Your task to perform on an android device: Show me popular games on the Play Store Image 0: 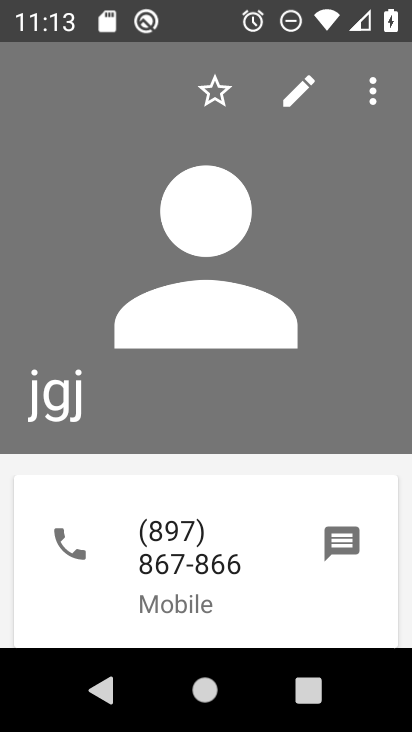
Step 0: press home button
Your task to perform on an android device: Show me popular games on the Play Store Image 1: 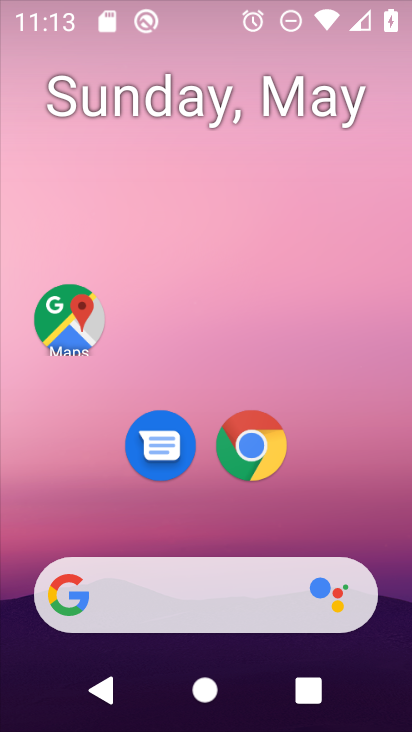
Step 1: drag from (213, 557) to (253, 179)
Your task to perform on an android device: Show me popular games on the Play Store Image 2: 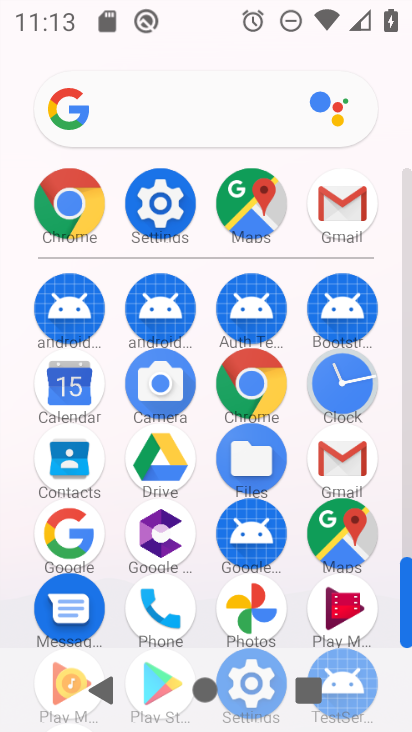
Step 2: drag from (253, 551) to (252, 252)
Your task to perform on an android device: Show me popular games on the Play Store Image 3: 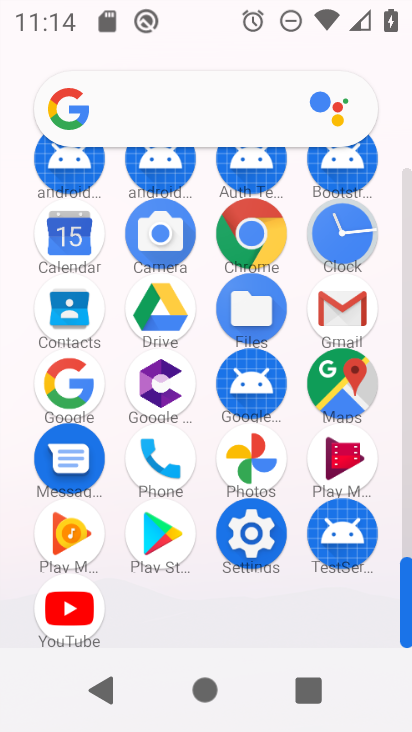
Step 3: click (144, 557)
Your task to perform on an android device: Show me popular games on the Play Store Image 4: 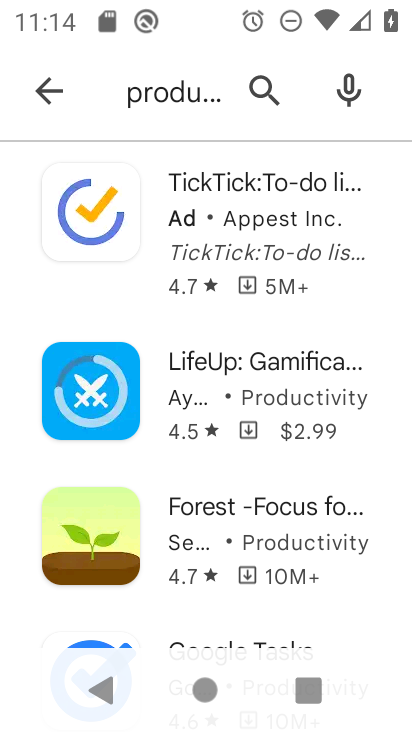
Step 4: click (43, 62)
Your task to perform on an android device: Show me popular games on the Play Store Image 5: 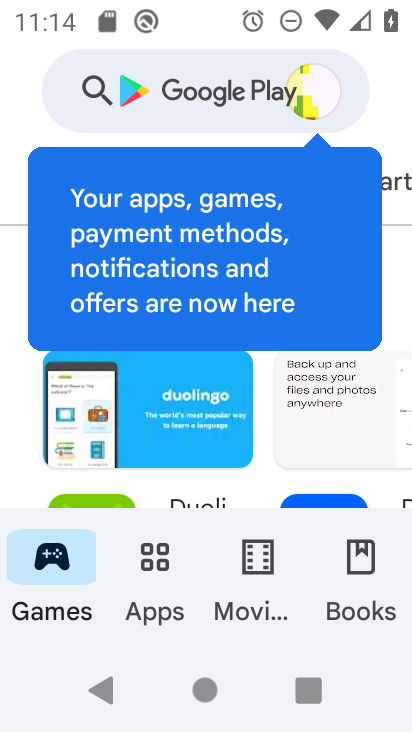
Step 5: click (214, 103)
Your task to perform on an android device: Show me popular games on the Play Store Image 6: 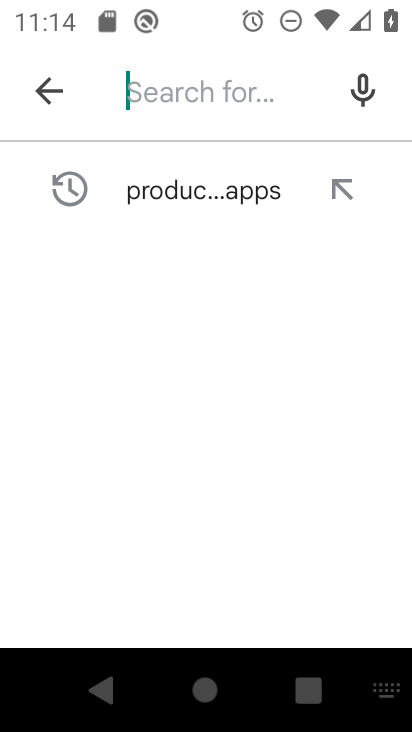
Step 6: click (41, 99)
Your task to perform on an android device: Show me popular games on the Play Store Image 7: 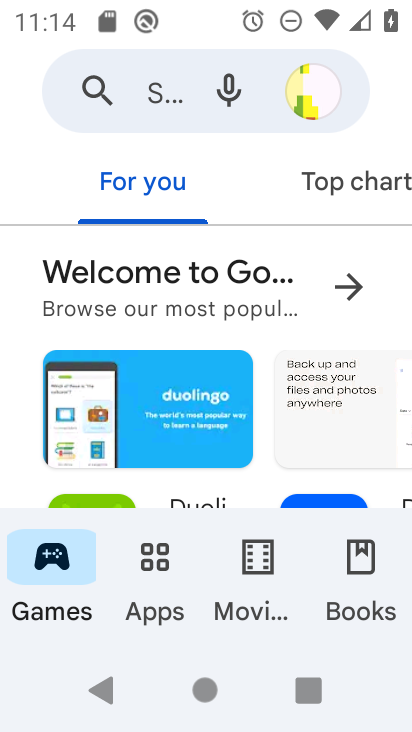
Step 7: click (162, 102)
Your task to perform on an android device: Show me popular games on the Play Store Image 8: 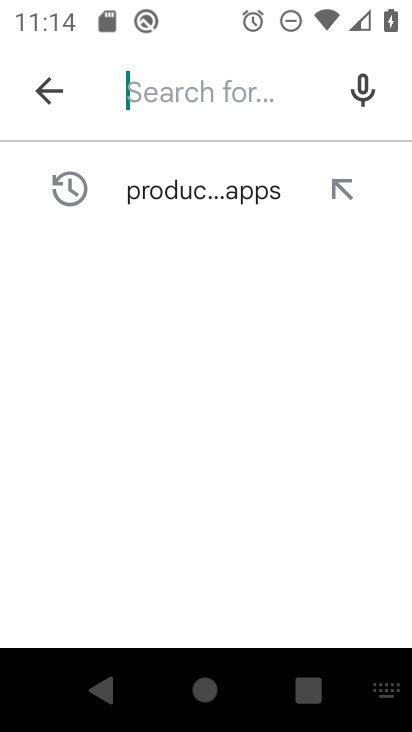
Step 8: task complete